Your task to perform on an android device: Open Chrome and go to settings Image 0: 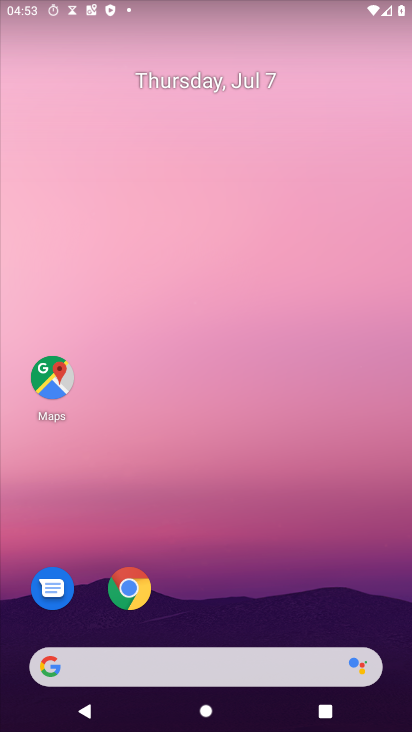
Step 0: press home button
Your task to perform on an android device: Open Chrome and go to settings Image 1: 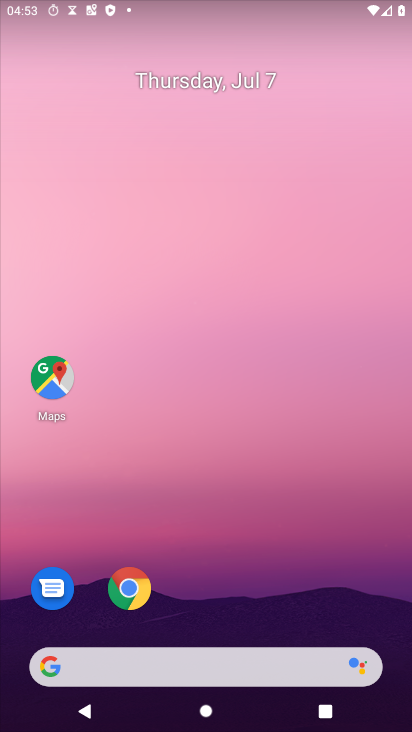
Step 1: drag from (274, 582) to (201, 107)
Your task to perform on an android device: Open Chrome and go to settings Image 2: 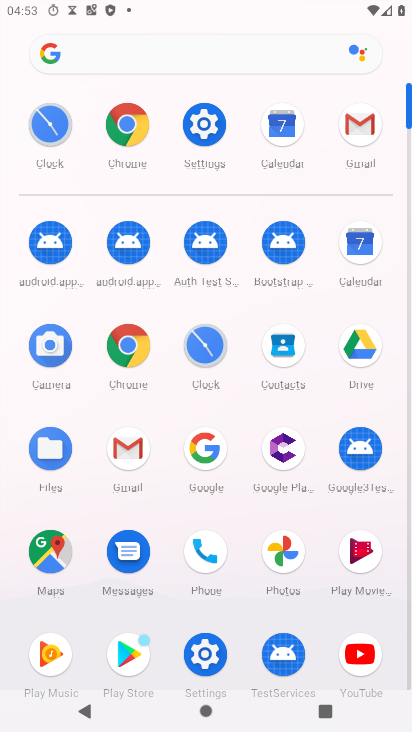
Step 2: click (115, 126)
Your task to perform on an android device: Open Chrome and go to settings Image 3: 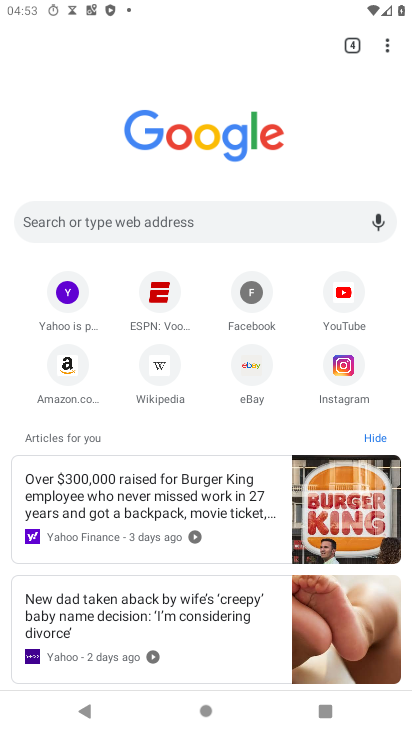
Step 3: task complete